Your task to perform on an android device: Empty the shopping cart on amazon.com. Add "asus rog" to the cart on amazon.com, then select checkout. Image 0: 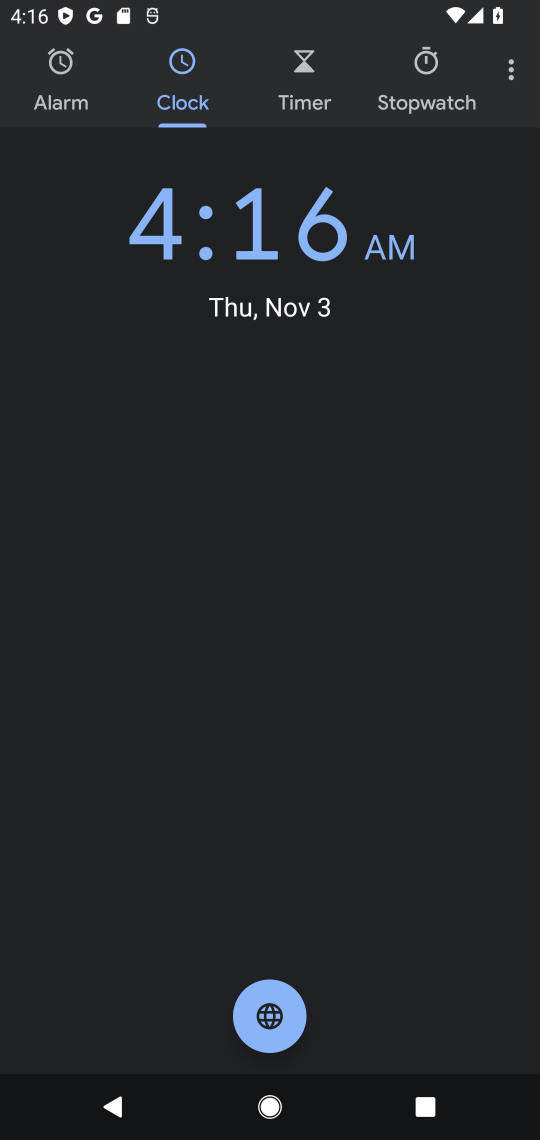
Step 0: press home button
Your task to perform on an android device: Empty the shopping cart on amazon.com. Add "asus rog" to the cart on amazon.com, then select checkout. Image 1: 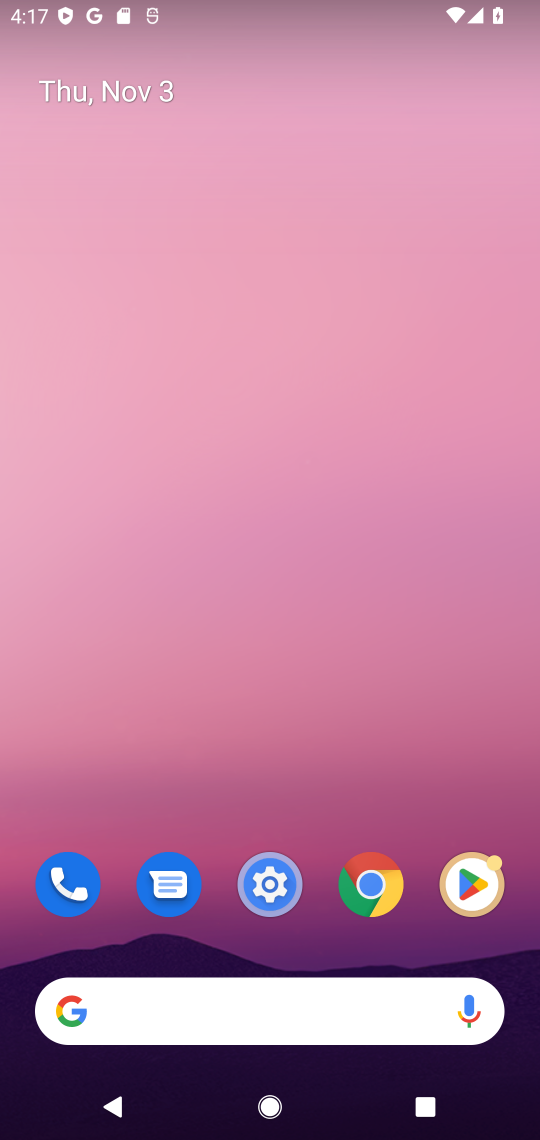
Step 1: click (109, 1006)
Your task to perform on an android device: Empty the shopping cart on amazon.com. Add "asus rog" to the cart on amazon.com, then select checkout. Image 2: 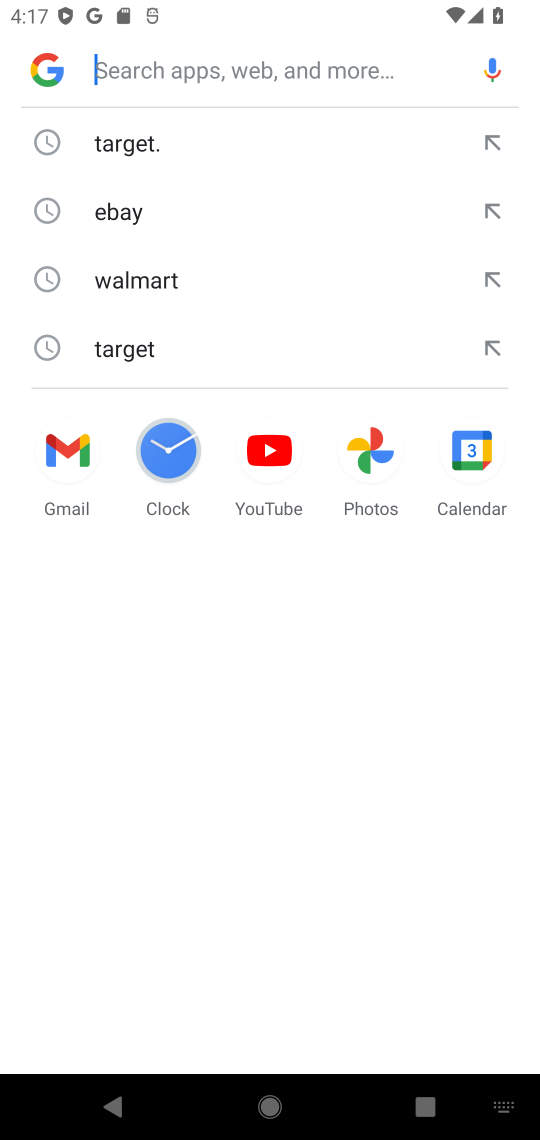
Step 2: type "amazon.com"
Your task to perform on an android device: Empty the shopping cart on amazon.com. Add "asus rog" to the cart on amazon.com, then select checkout. Image 3: 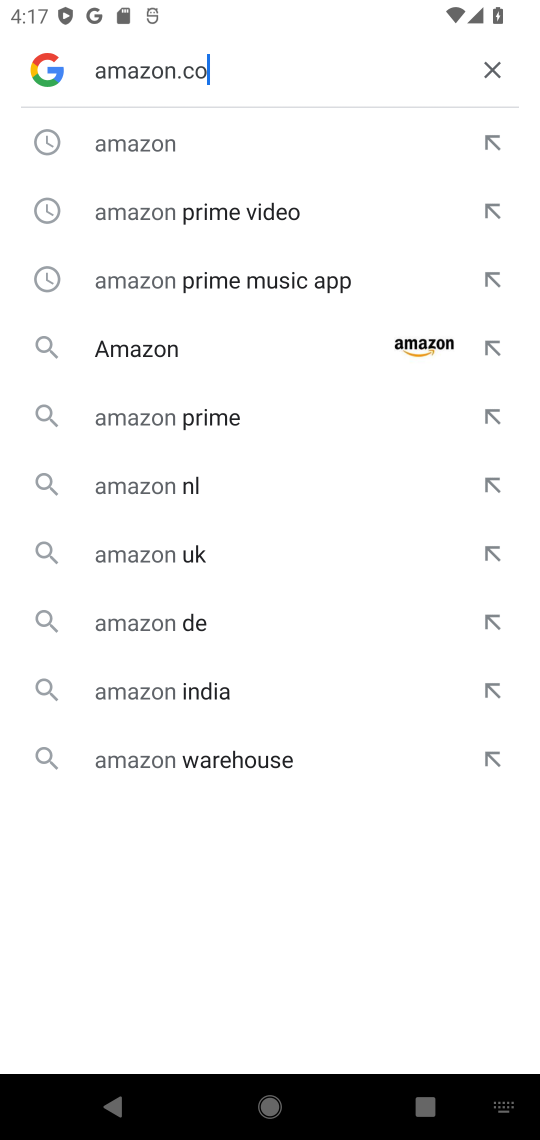
Step 3: press enter
Your task to perform on an android device: Empty the shopping cart on amazon.com. Add "asus rog" to the cart on amazon.com, then select checkout. Image 4: 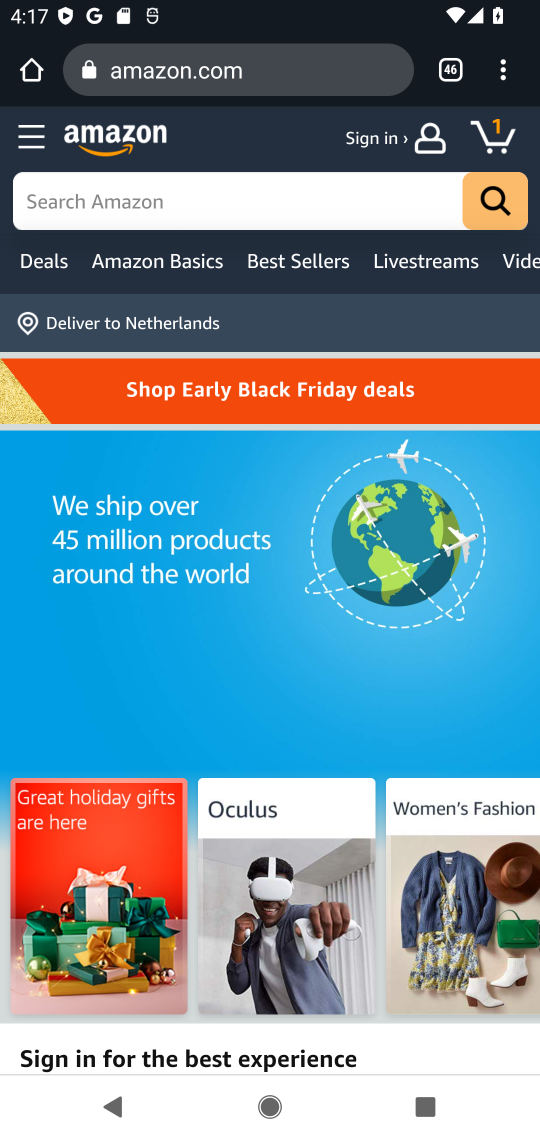
Step 4: click (501, 142)
Your task to perform on an android device: Empty the shopping cart on amazon.com. Add "asus rog" to the cart on amazon.com, then select checkout. Image 5: 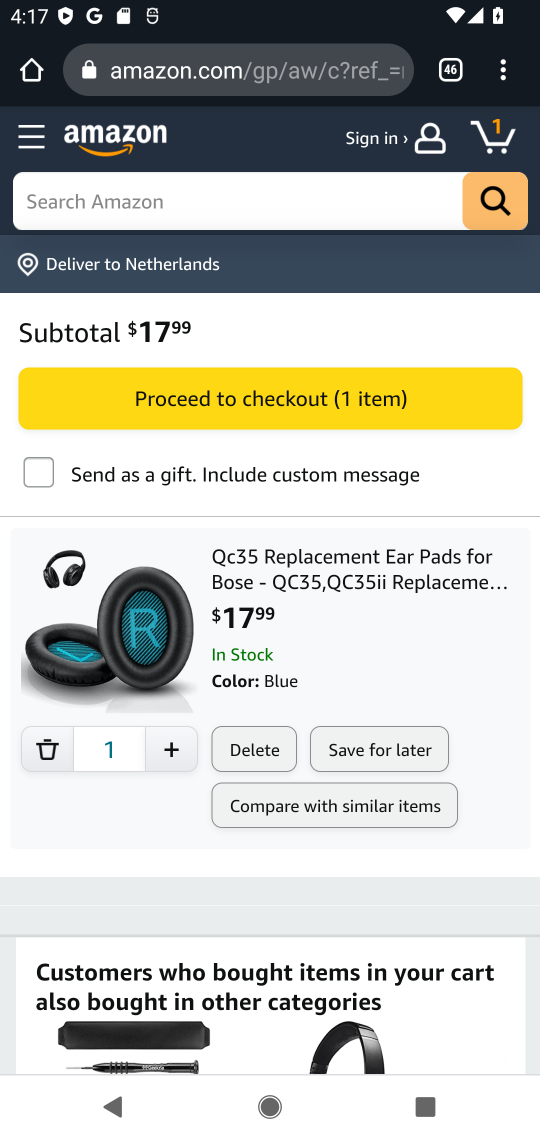
Step 5: click (47, 750)
Your task to perform on an android device: Empty the shopping cart on amazon.com. Add "asus rog" to the cart on amazon.com, then select checkout. Image 6: 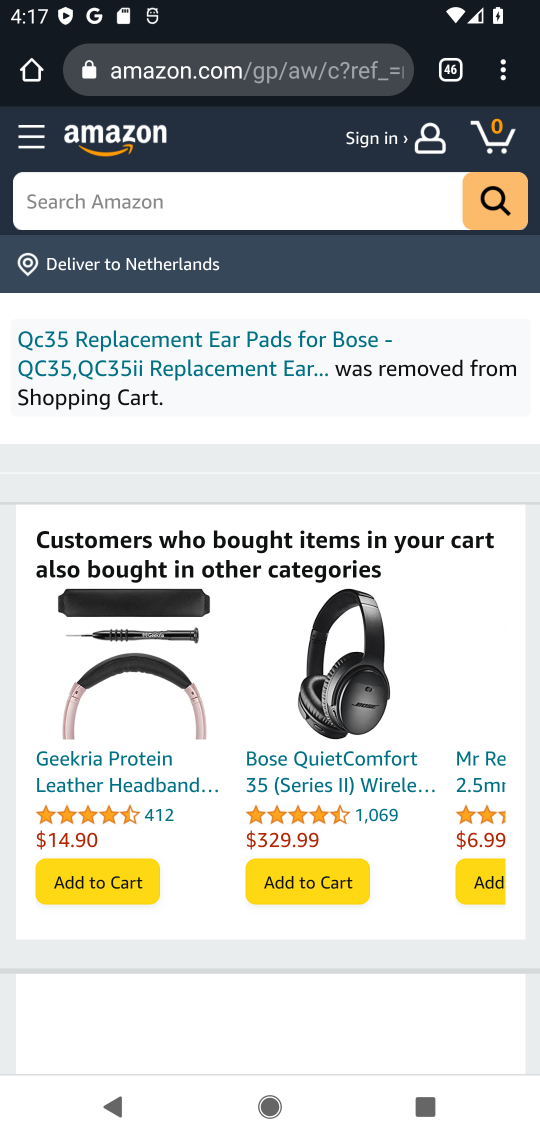
Step 6: click (97, 198)
Your task to perform on an android device: Empty the shopping cart on amazon.com. Add "asus rog" to the cart on amazon.com, then select checkout. Image 7: 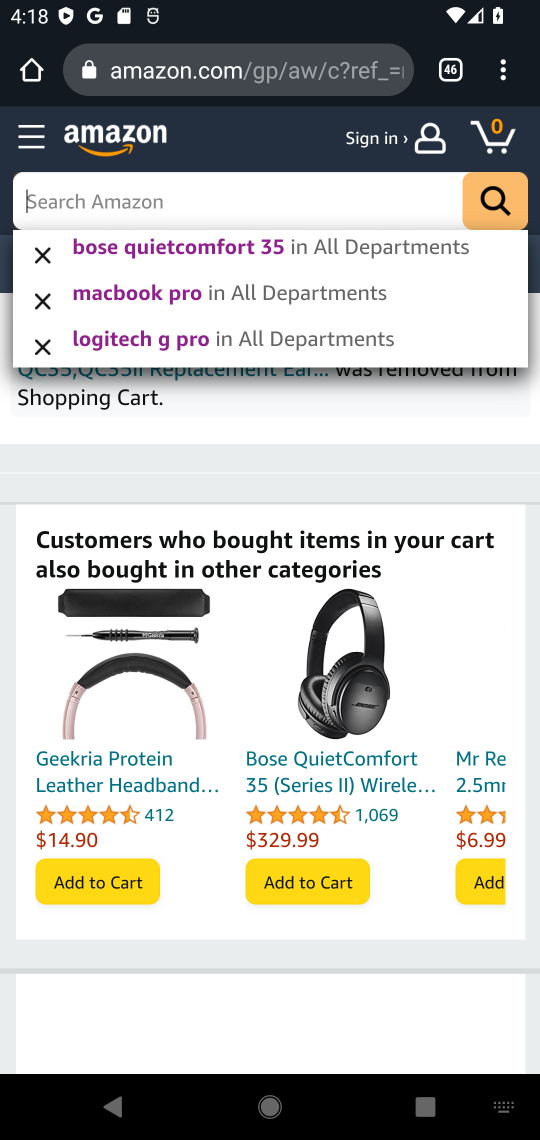
Step 7: type "asus rog"
Your task to perform on an android device: Empty the shopping cart on amazon.com. Add "asus rog" to the cart on amazon.com, then select checkout. Image 8: 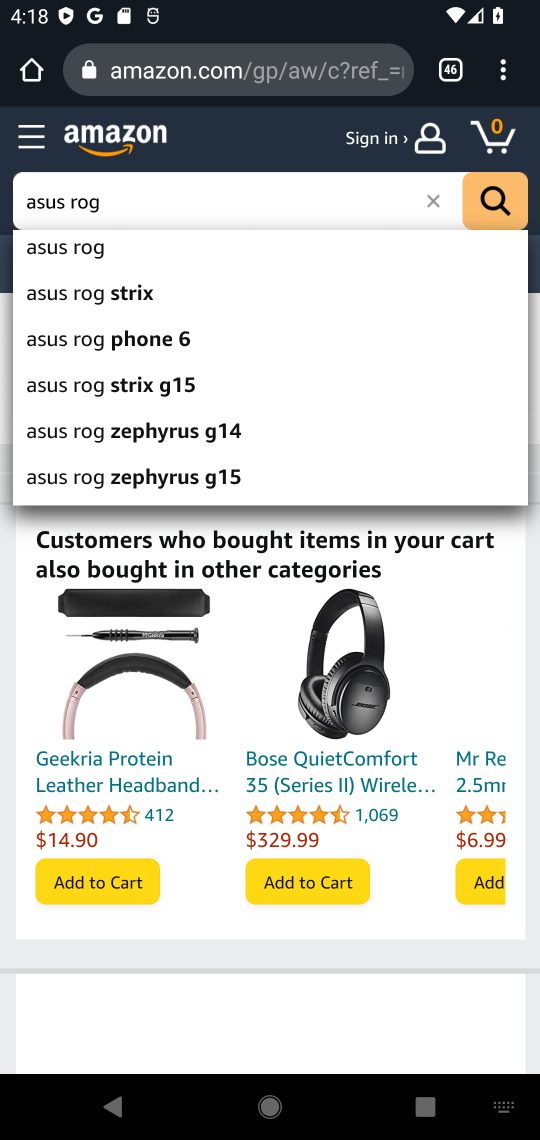
Step 8: click (498, 207)
Your task to perform on an android device: Empty the shopping cart on amazon.com. Add "asus rog" to the cart on amazon.com, then select checkout. Image 9: 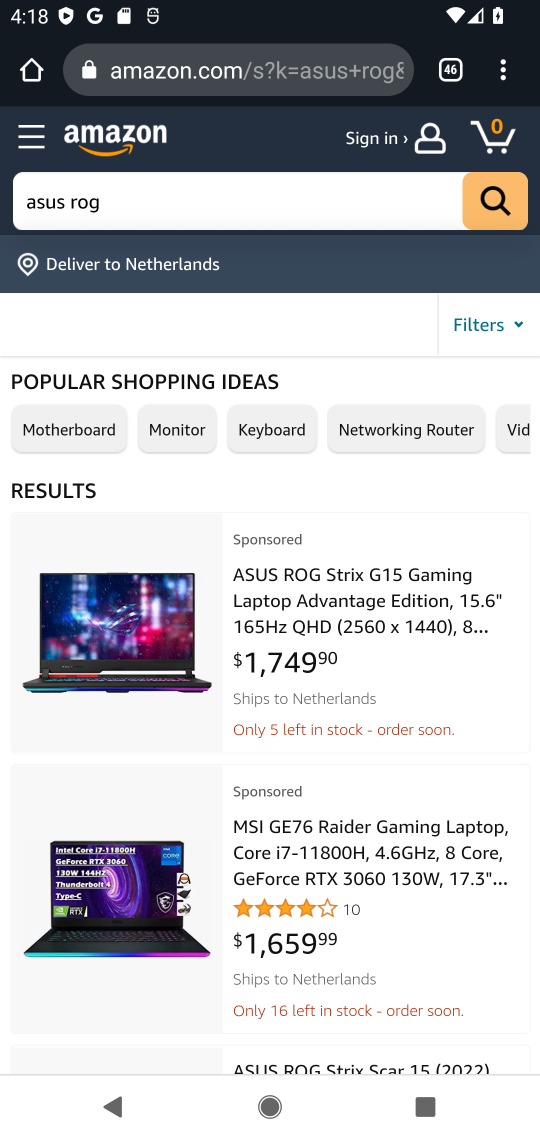
Step 9: click (313, 584)
Your task to perform on an android device: Empty the shopping cart on amazon.com. Add "asus rog" to the cart on amazon.com, then select checkout. Image 10: 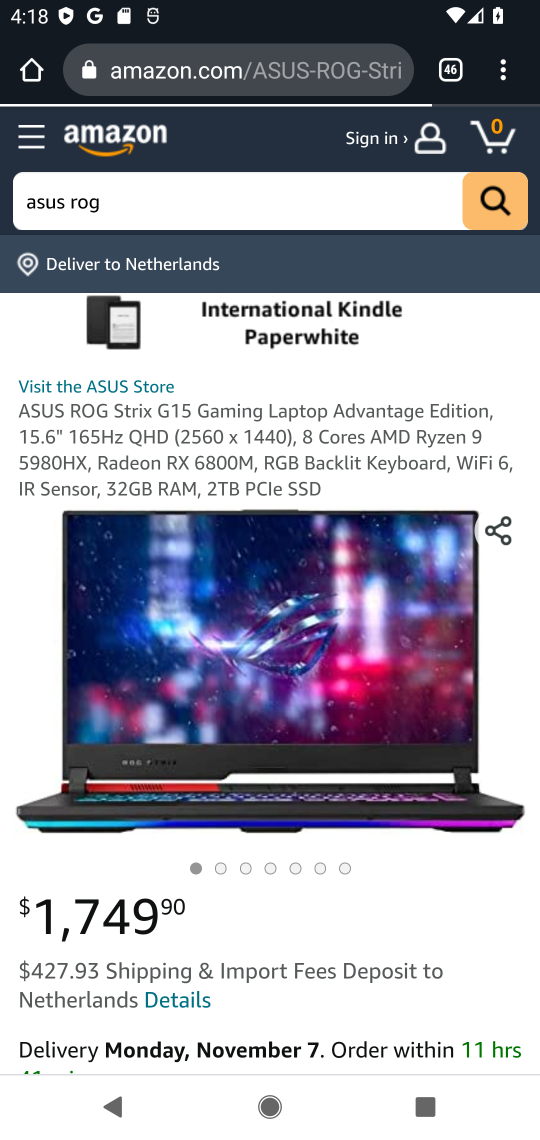
Step 10: drag from (358, 912) to (370, 448)
Your task to perform on an android device: Empty the shopping cart on amazon.com. Add "asus rog" to the cart on amazon.com, then select checkout. Image 11: 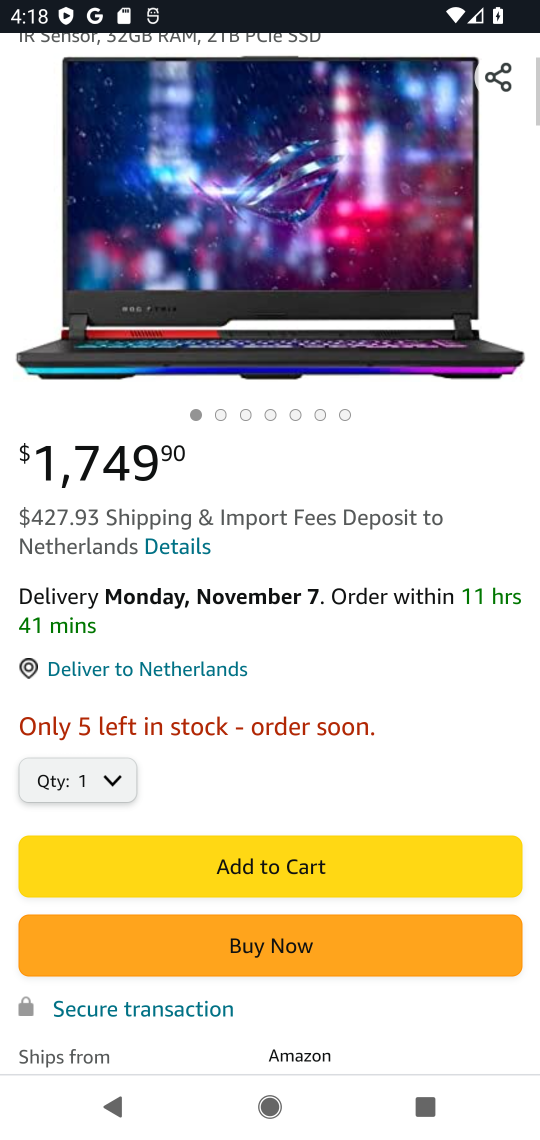
Step 11: drag from (470, 890) to (494, 394)
Your task to perform on an android device: Empty the shopping cart on amazon.com. Add "asus rog" to the cart on amazon.com, then select checkout. Image 12: 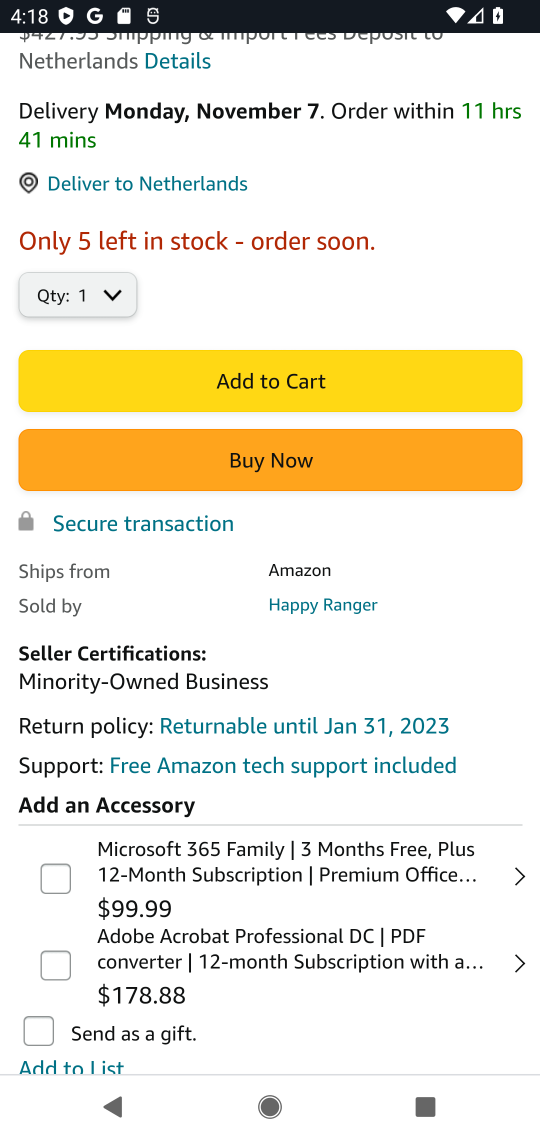
Step 12: click (274, 384)
Your task to perform on an android device: Empty the shopping cart on amazon.com. Add "asus rog" to the cart on amazon.com, then select checkout. Image 13: 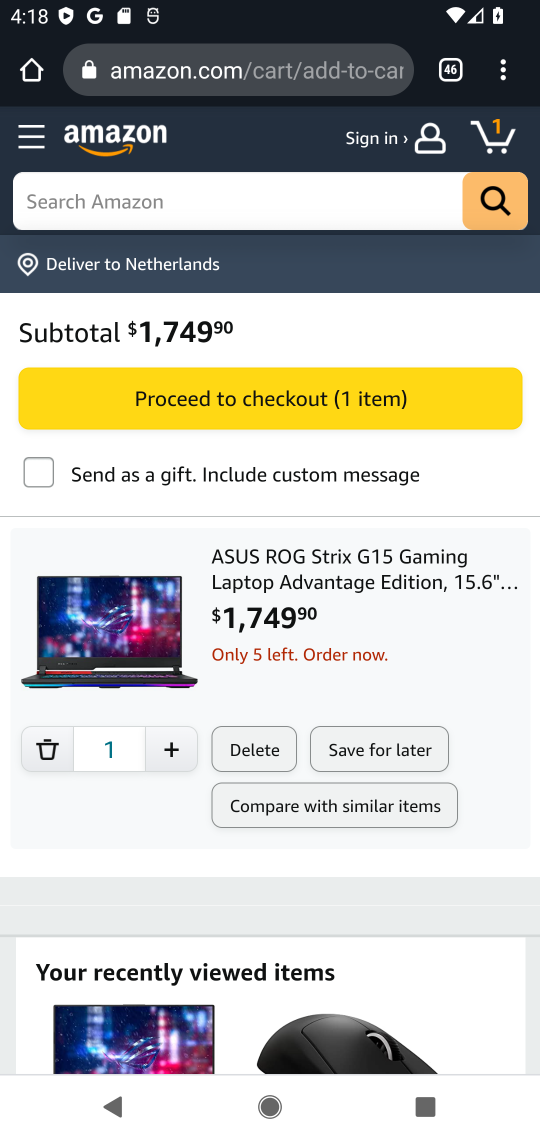
Step 13: click (207, 401)
Your task to perform on an android device: Empty the shopping cart on amazon.com. Add "asus rog" to the cart on amazon.com, then select checkout. Image 14: 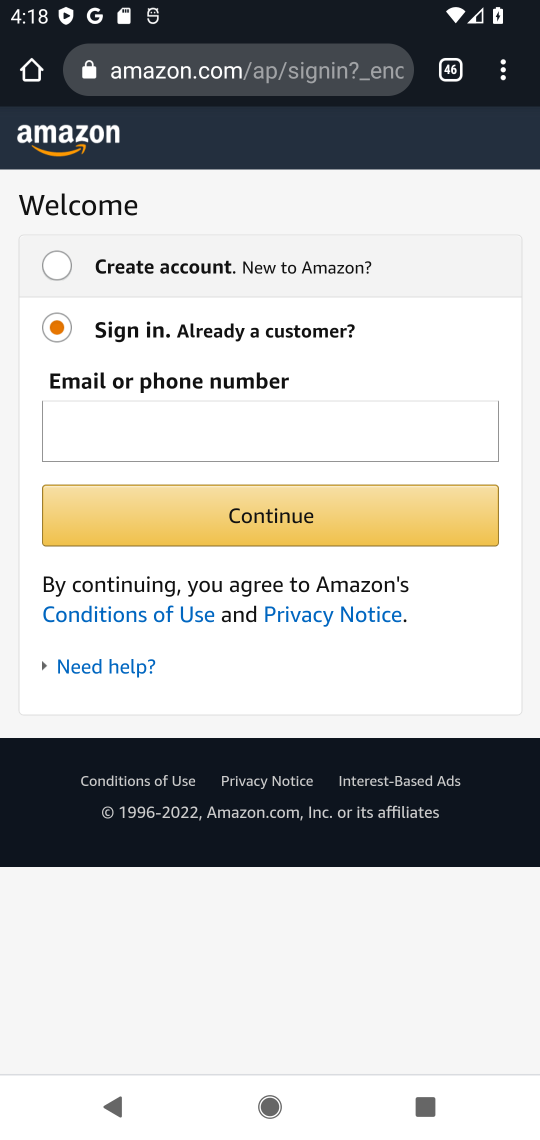
Step 14: task complete